Your task to perform on an android device: search for starred emails in the gmail app Image 0: 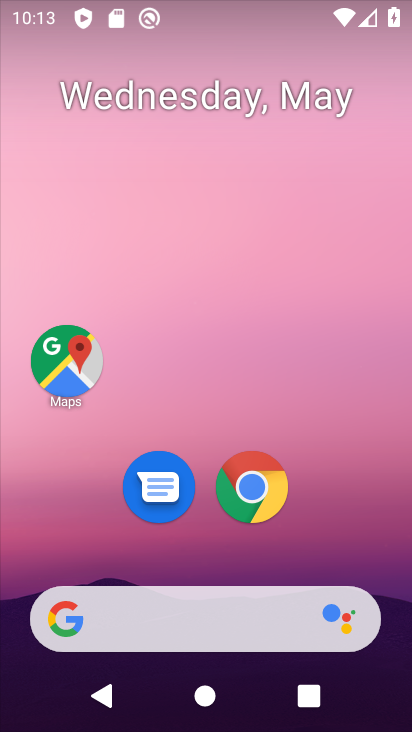
Step 0: drag from (313, 447) to (293, 28)
Your task to perform on an android device: search for starred emails in the gmail app Image 1: 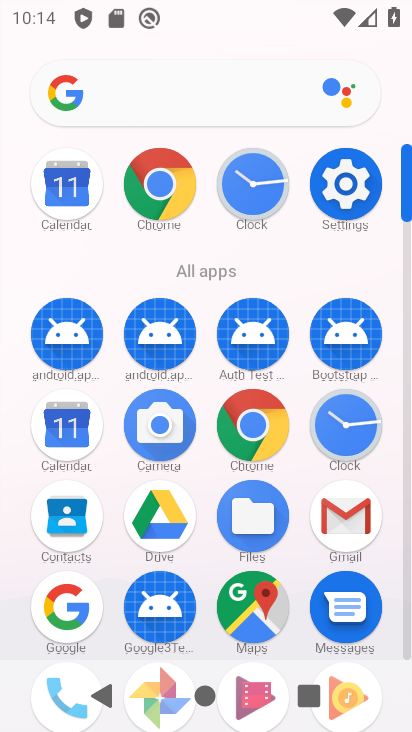
Step 1: drag from (14, 610) to (29, 257)
Your task to perform on an android device: search for starred emails in the gmail app Image 2: 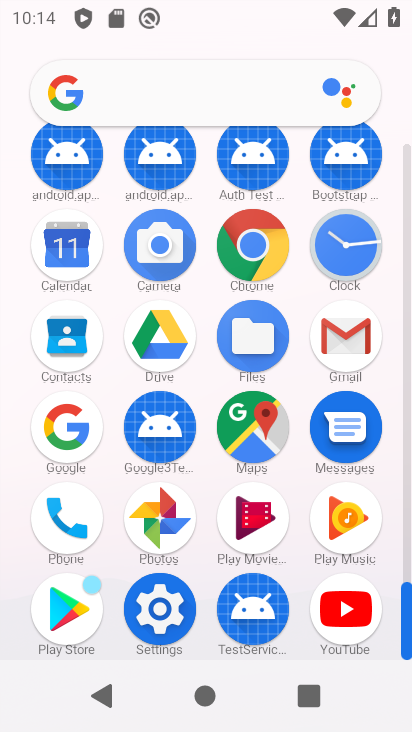
Step 2: click (346, 330)
Your task to perform on an android device: search for starred emails in the gmail app Image 3: 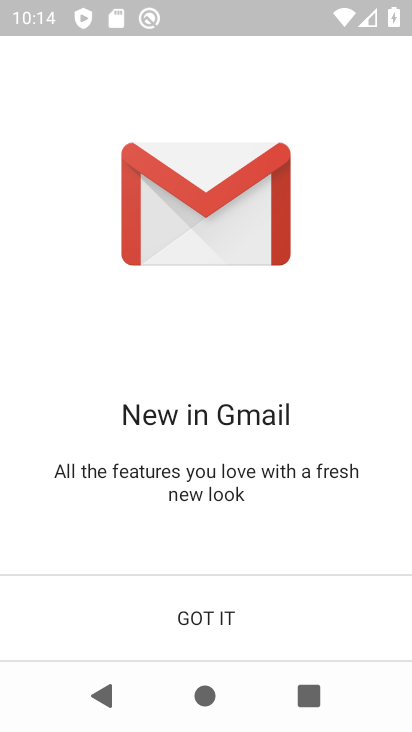
Step 3: click (209, 628)
Your task to perform on an android device: search for starred emails in the gmail app Image 4: 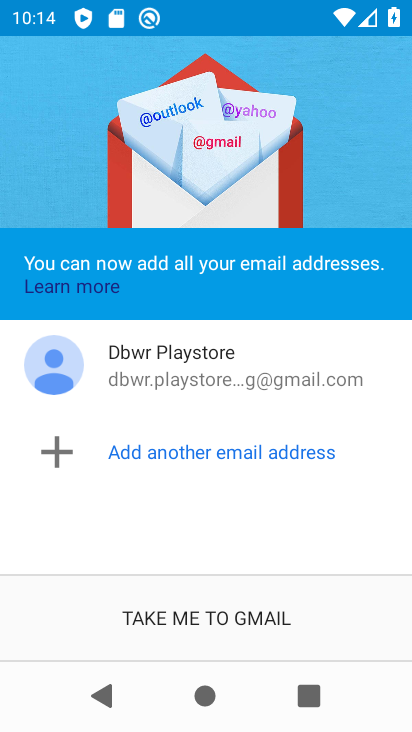
Step 4: click (210, 628)
Your task to perform on an android device: search for starred emails in the gmail app Image 5: 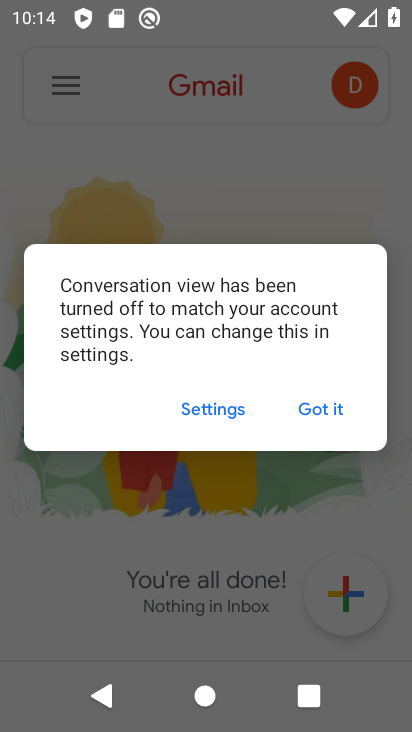
Step 5: click (307, 392)
Your task to perform on an android device: search for starred emails in the gmail app Image 6: 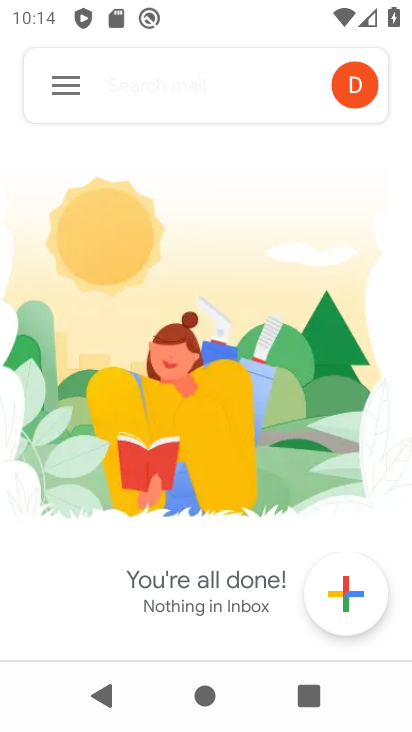
Step 6: click (82, 84)
Your task to perform on an android device: search for starred emails in the gmail app Image 7: 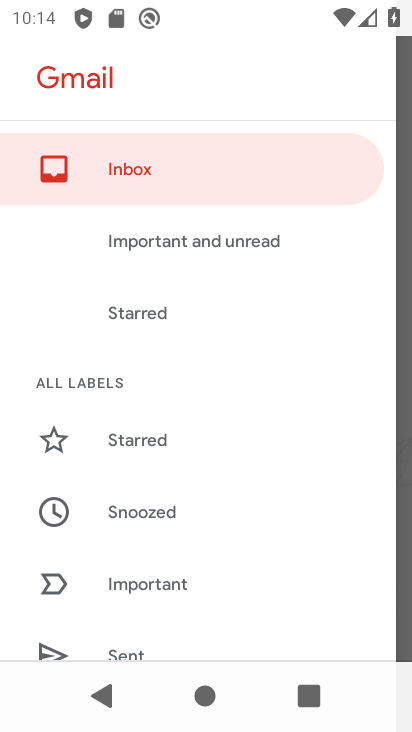
Step 7: click (173, 303)
Your task to perform on an android device: search for starred emails in the gmail app Image 8: 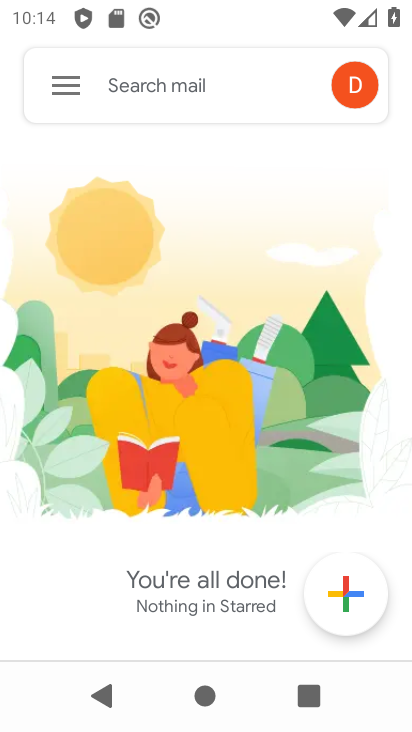
Step 8: task complete